Your task to perform on an android device: Go to wifi settings Image 0: 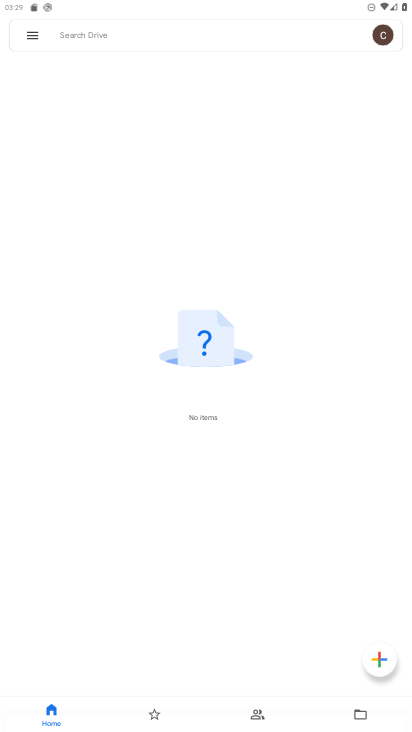
Step 0: press home button
Your task to perform on an android device: Go to wifi settings Image 1: 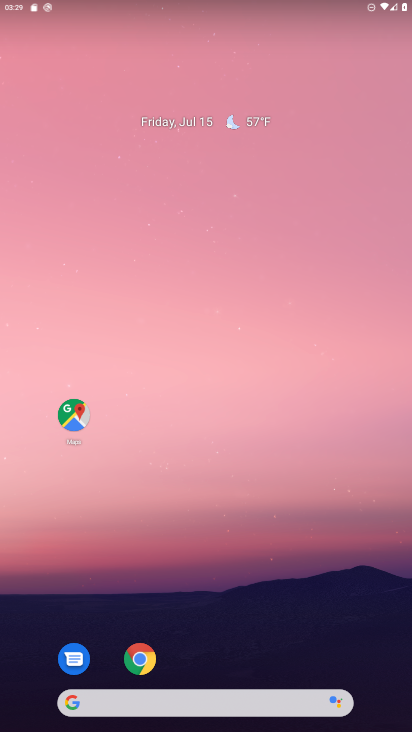
Step 1: drag from (248, 651) to (335, 5)
Your task to perform on an android device: Go to wifi settings Image 2: 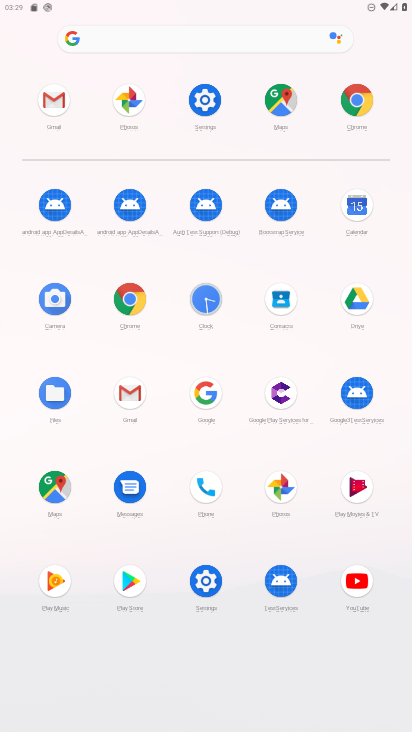
Step 2: click (214, 586)
Your task to perform on an android device: Go to wifi settings Image 3: 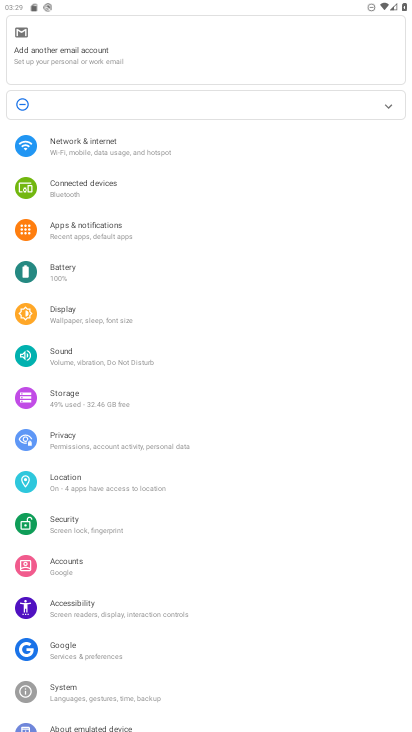
Step 3: click (104, 152)
Your task to perform on an android device: Go to wifi settings Image 4: 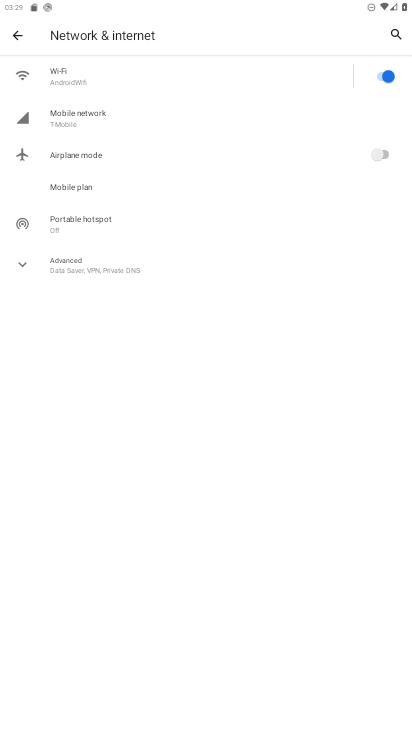
Step 4: click (98, 74)
Your task to perform on an android device: Go to wifi settings Image 5: 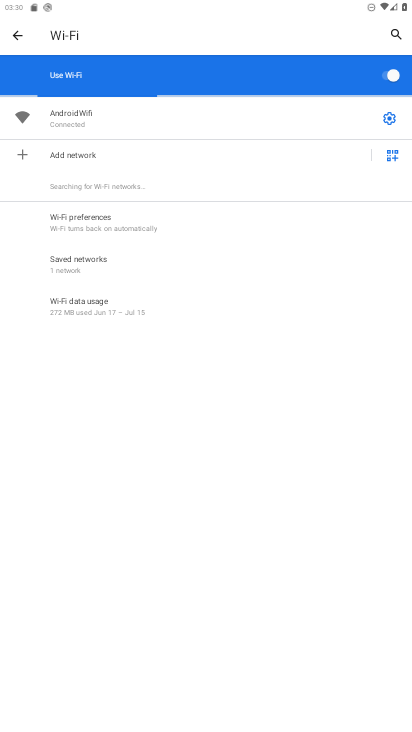
Step 5: task complete